Your task to perform on an android device: make emails show in primary in the gmail app Image 0: 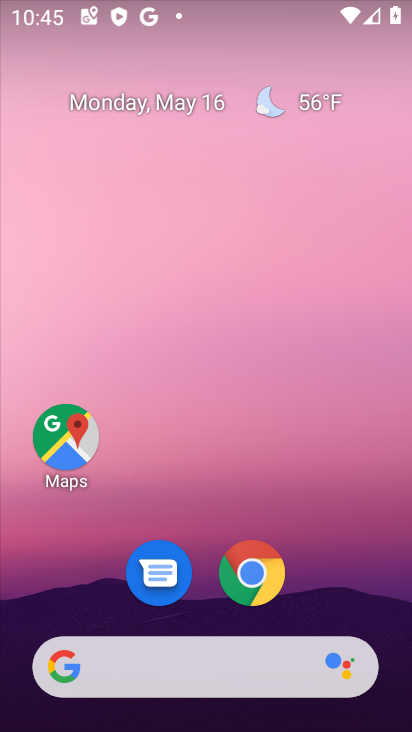
Step 0: drag from (327, 594) to (314, 203)
Your task to perform on an android device: make emails show in primary in the gmail app Image 1: 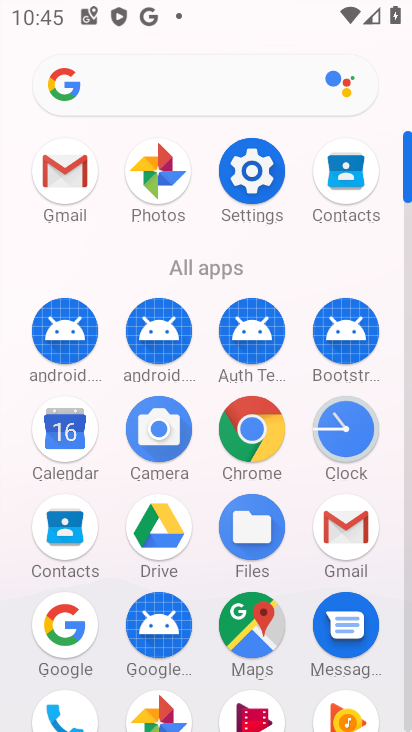
Step 1: click (60, 171)
Your task to perform on an android device: make emails show in primary in the gmail app Image 2: 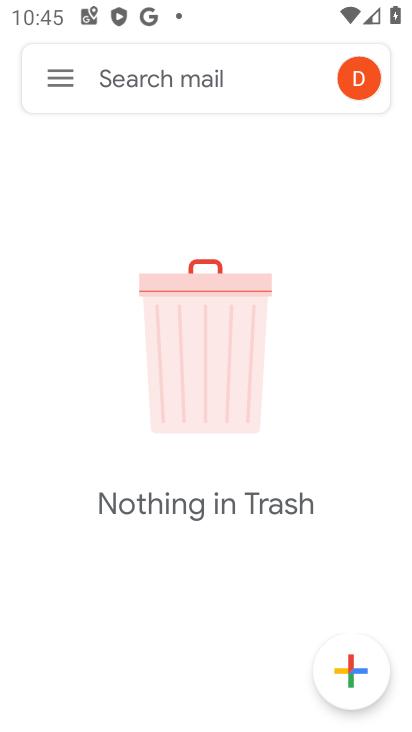
Step 2: click (54, 78)
Your task to perform on an android device: make emails show in primary in the gmail app Image 3: 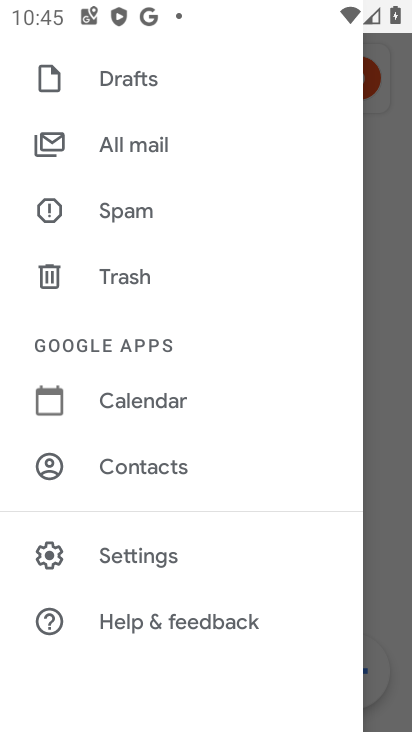
Step 3: drag from (96, 294) to (97, 3)
Your task to perform on an android device: make emails show in primary in the gmail app Image 4: 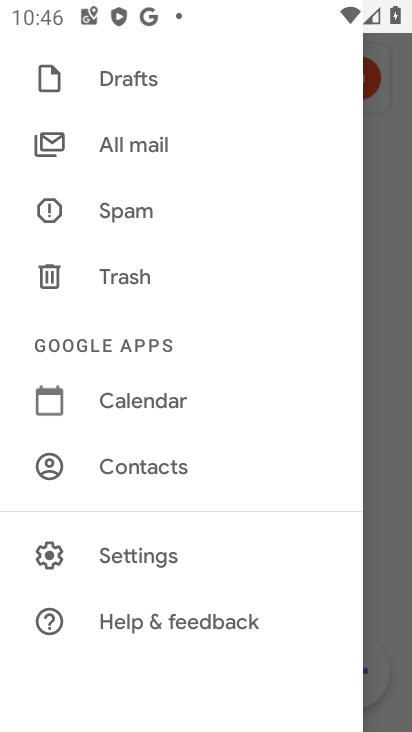
Step 4: click (138, 547)
Your task to perform on an android device: make emails show in primary in the gmail app Image 5: 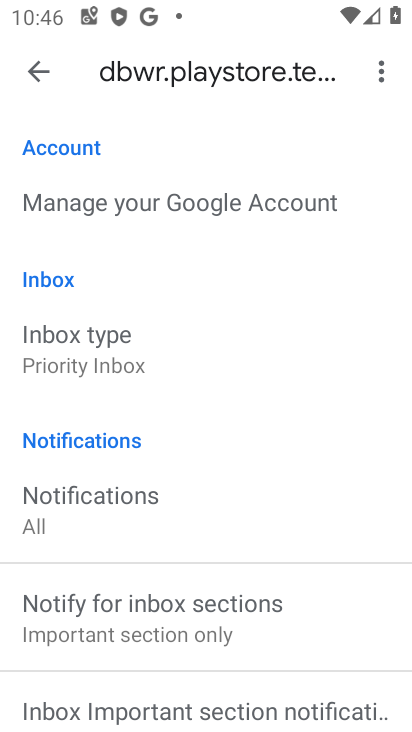
Step 5: drag from (200, 538) to (198, 369)
Your task to perform on an android device: make emails show in primary in the gmail app Image 6: 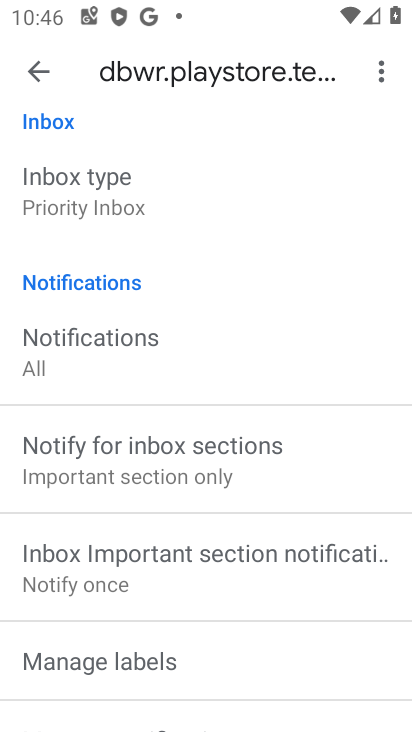
Step 6: click (183, 205)
Your task to perform on an android device: make emails show in primary in the gmail app Image 7: 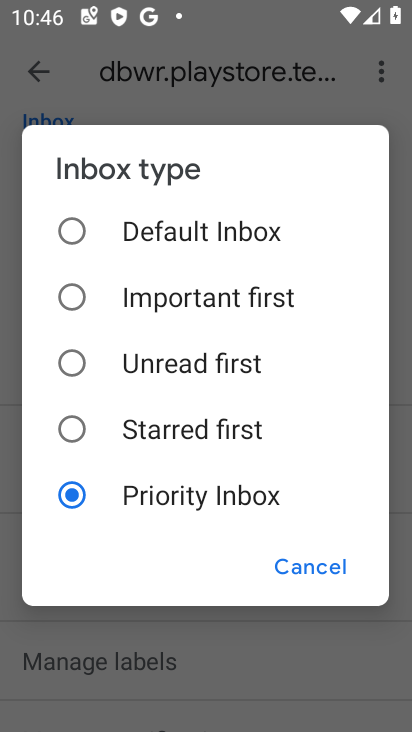
Step 7: click (72, 222)
Your task to perform on an android device: make emails show in primary in the gmail app Image 8: 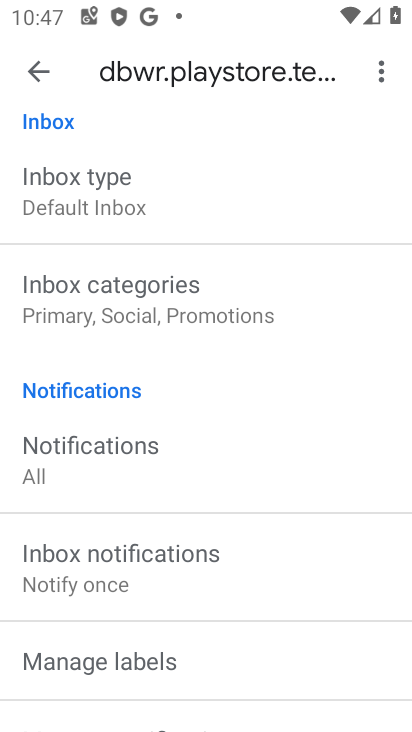
Step 8: click (172, 290)
Your task to perform on an android device: make emails show in primary in the gmail app Image 9: 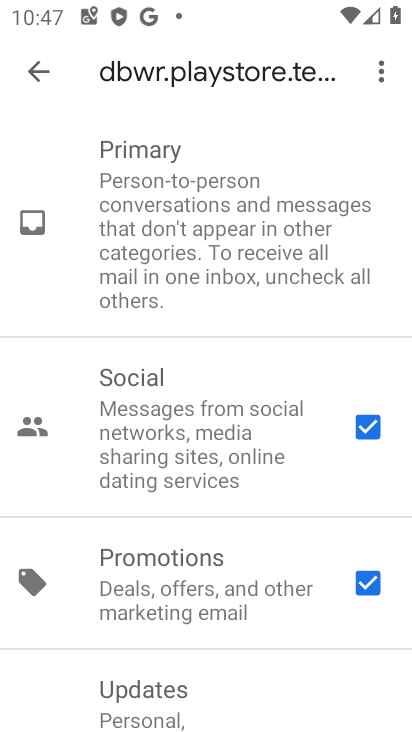
Step 9: click (368, 423)
Your task to perform on an android device: make emails show in primary in the gmail app Image 10: 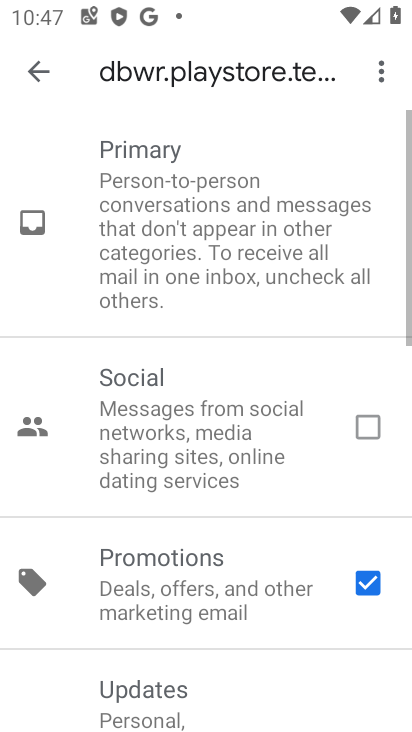
Step 10: click (365, 586)
Your task to perform on an android device: make emails show in primary in the gmail app Image 11: 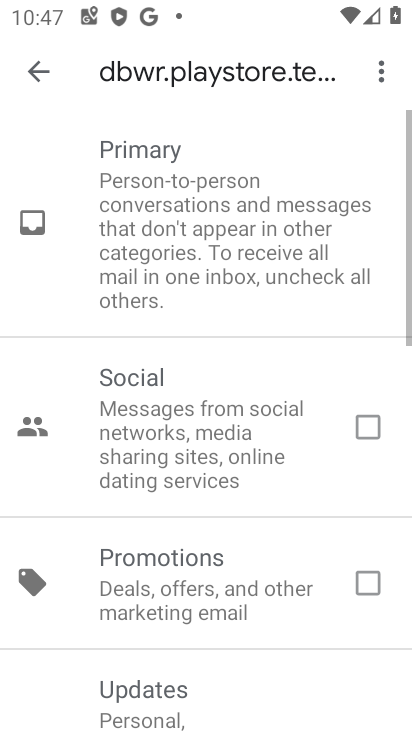
Step 11: click (35, 90)
Your task to perform on an android device: make emails show in primary in the gmail app Image 12: 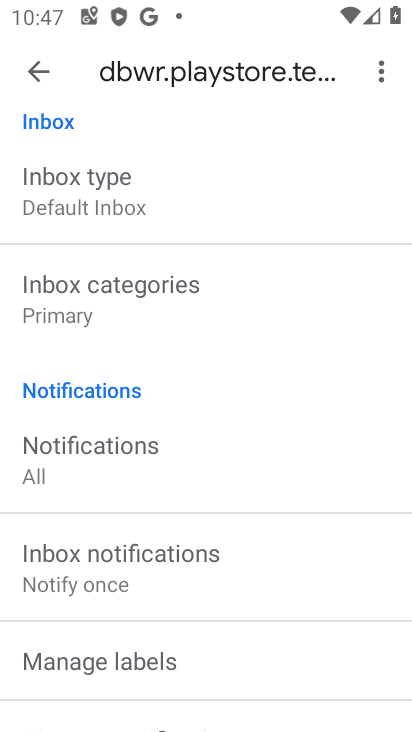
Step 12: task complete